Your task to perform on an android device: snooze an email in the gmail app Image 0: 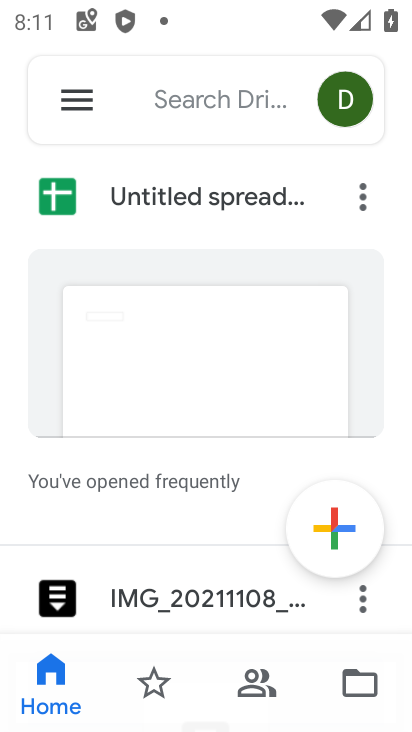
Step 0: press home button
Your task to perform on an android device: snooze an email in the gmail app Image 1: 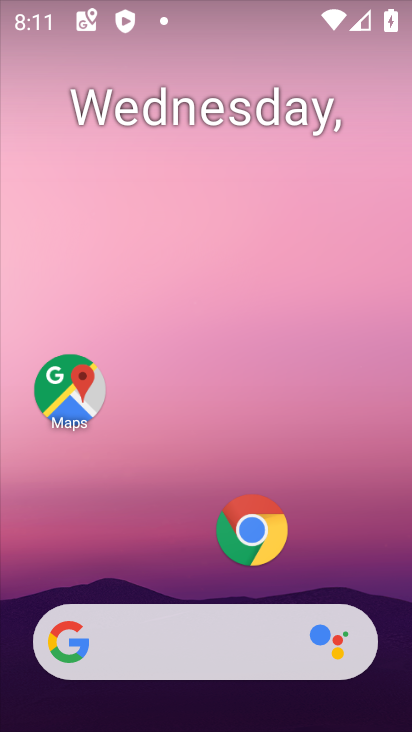
Step 1: drag from (140, 567) to (267, 12)
Your task to perform on an android device: snooze an email in the gmail app Image 2: 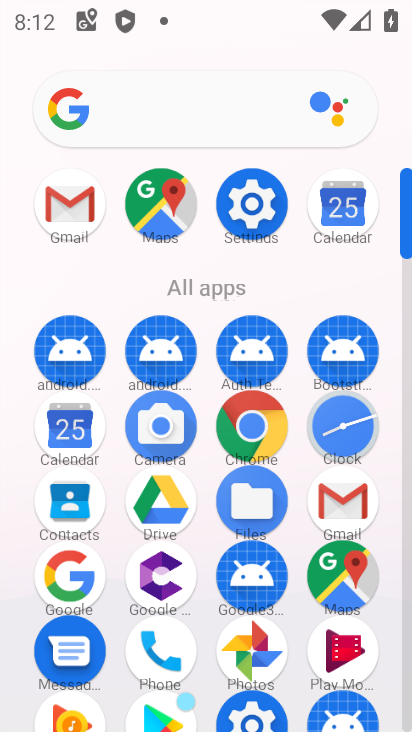
Step 2: click (77, 197)
Your task to perform on an android device: snooze an email in the gmail app Image 3: 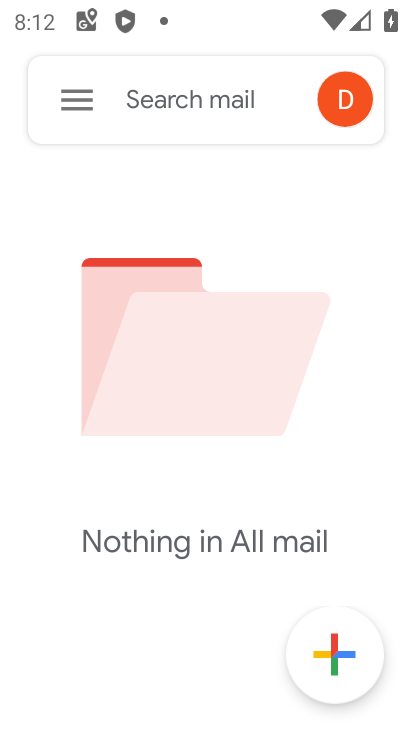
Step 3: task complete